Your task to perform on an android device: Search for Mexican restaurants on Maps Image 0: 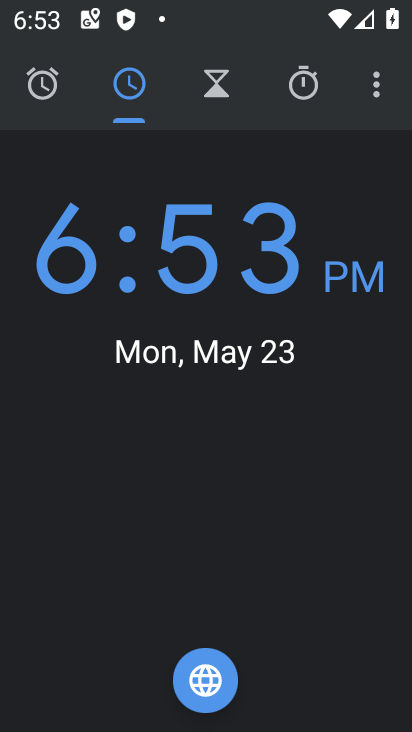
Step 0: press home button
Your task to perform on an android device: Search for Mexican restaurants on Maps Image 1: 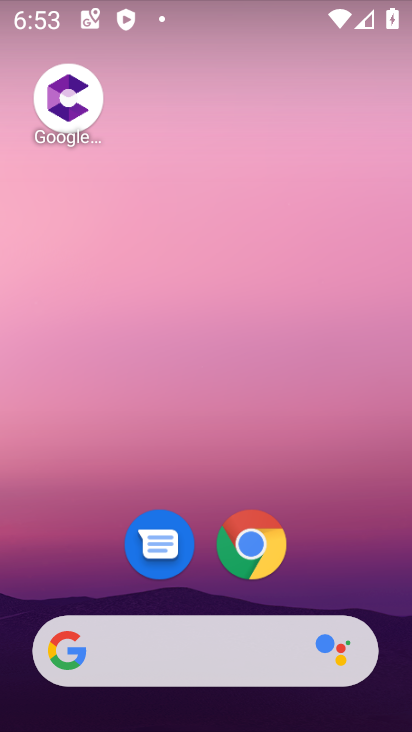
Step 1: drag from (97, 514) to (97, 30)
Your task to perform on an android device: Search for Mexican restaurants on Maps Image 2: 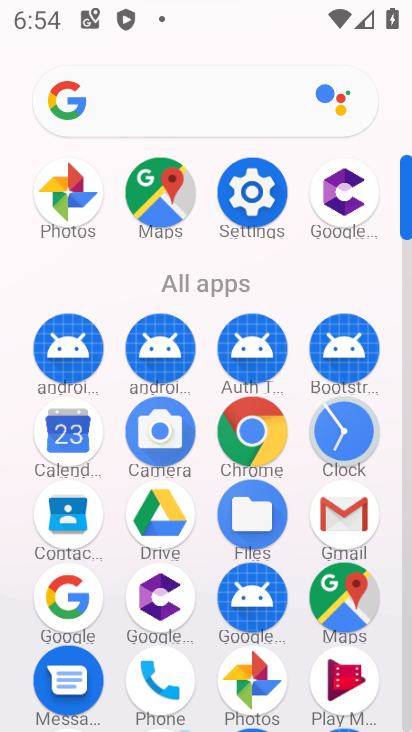
Step 2: click (160, 213)
Your task to perform on an android device: Search for Mexican restaurants on Maps Image 3: 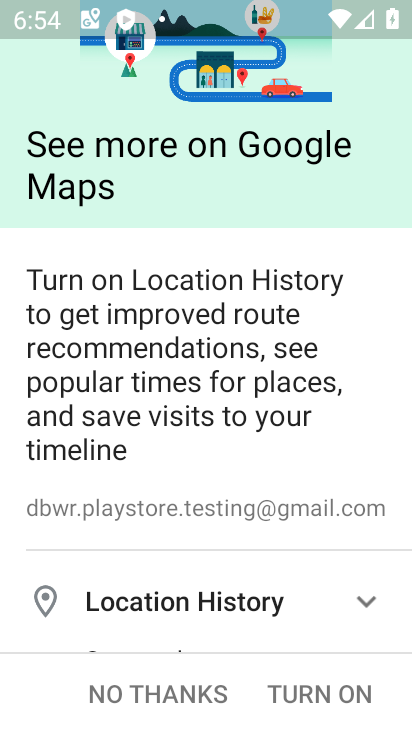
Step 3: click (306, 682)
Your task to perform on an android device: Search for Mexican restaurants on Maps Image 4: 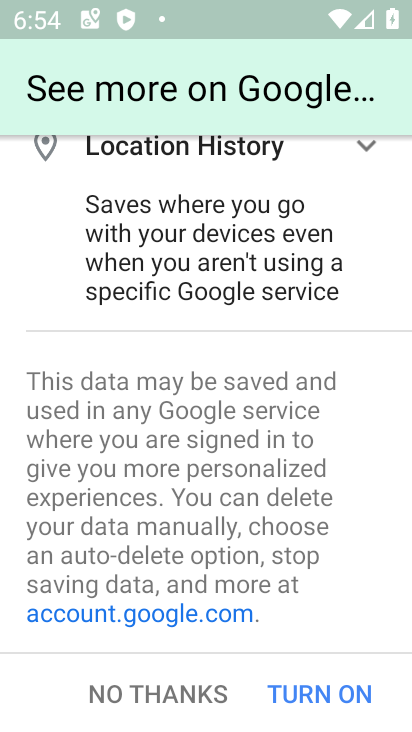
Step 4: click (330, 690)
Your task to perform on an android device: Search for Mexican restaurants on Maps Image 5: 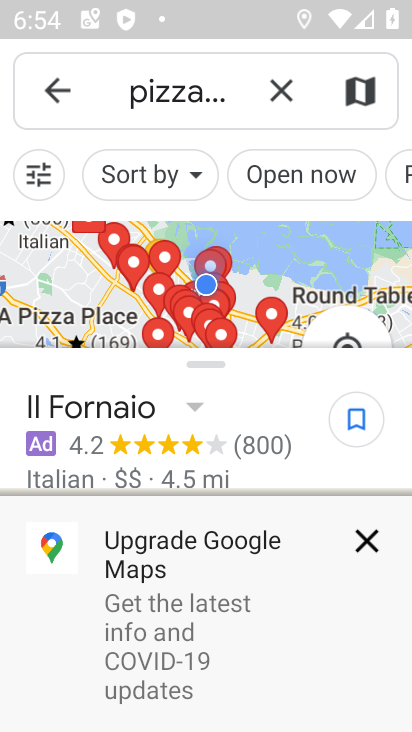
Step 5: click (277, 86)
Your task to perform on an android device: Search for Mexican restaurants on Maps Image 6: 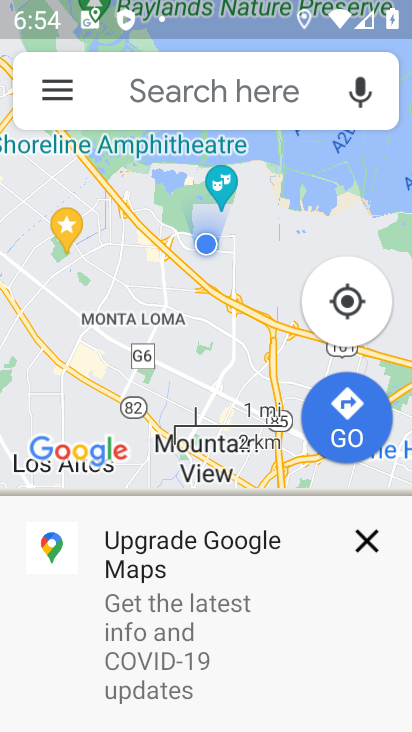
Step 6: click (277, 86)
Your task to perform on an android device: Search for Mexican restaurants on Maps Image 7: 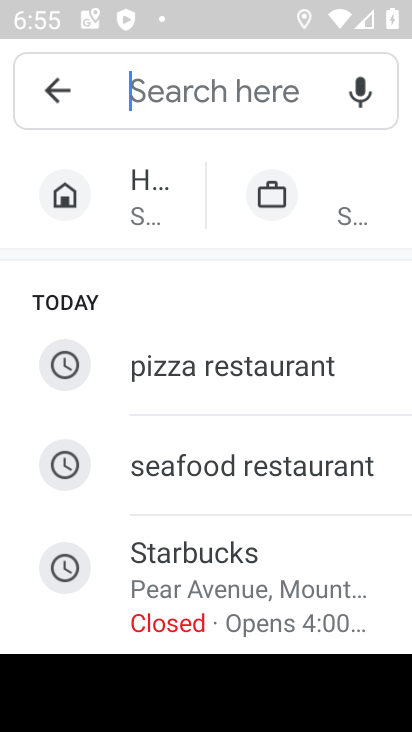
Step 7: type "mexican"
Your task to perform on an android device: Search for Mexican restaurants on Maps Image 8: 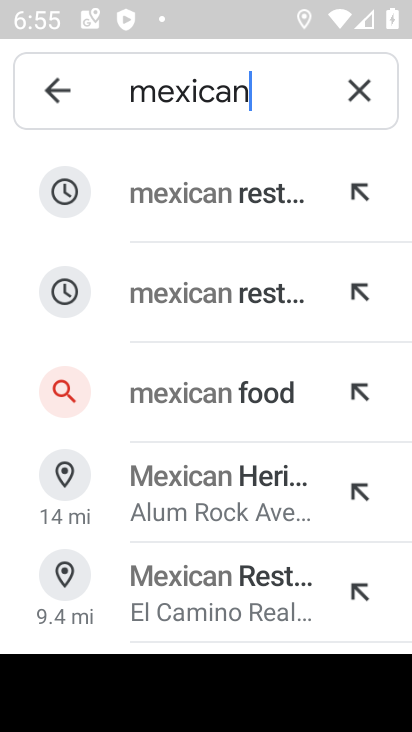
Step 8: click (225, 195)
Your task to perform on an android device: Search for Mexican restaurants on Maps Image 9: 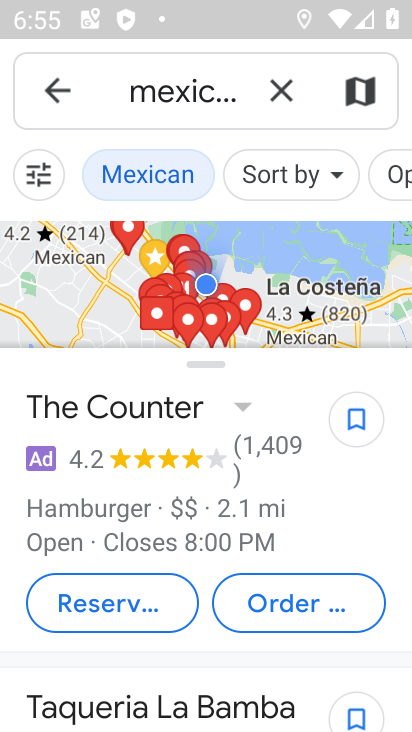
Step 9: task complete